Your task to perform on an android device: clear all cookies in the chrome app Image 0: 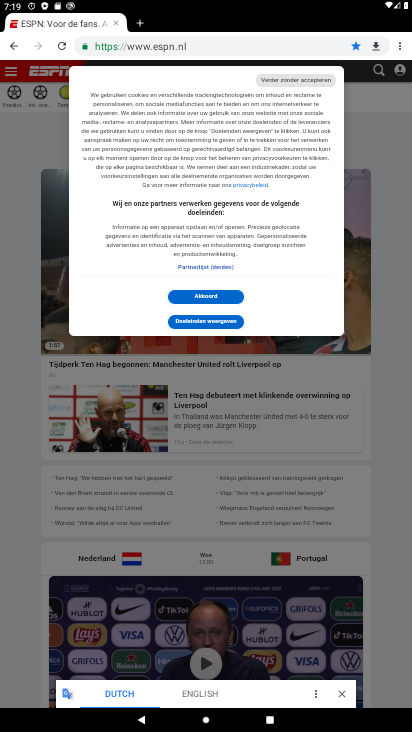
Step 0: press home button
Your task to perform on an android device: clear all cookies in the chrome app Image 1: 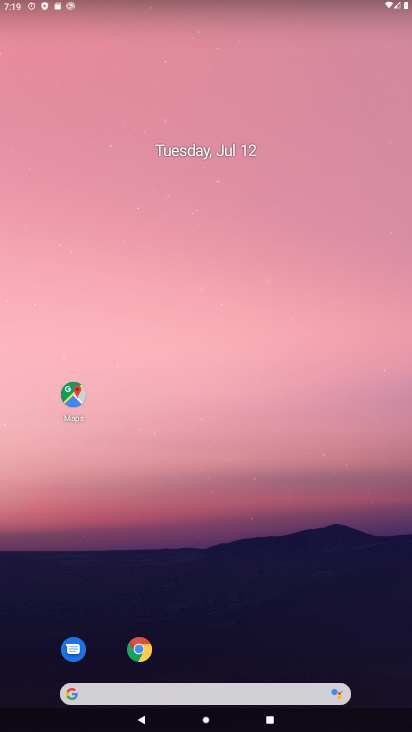
Step 1: click (140, 651)
Your task to perform on an android device: clear all cookies in the chrome app Image 2: 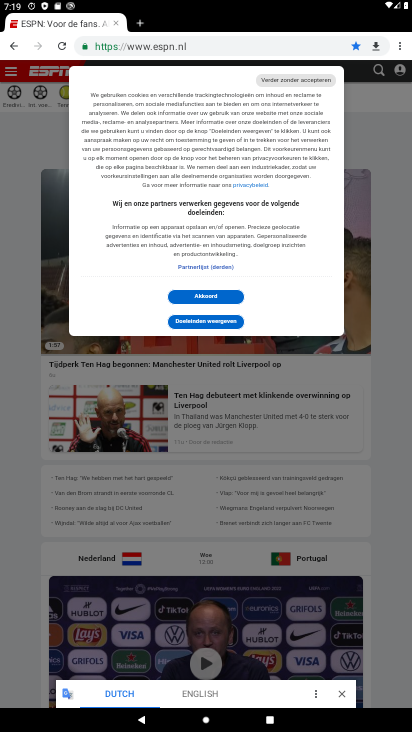
Step 2: click (400, 47)
Your task to perform on an android device: clear all cookies in the chrome app Image 3: 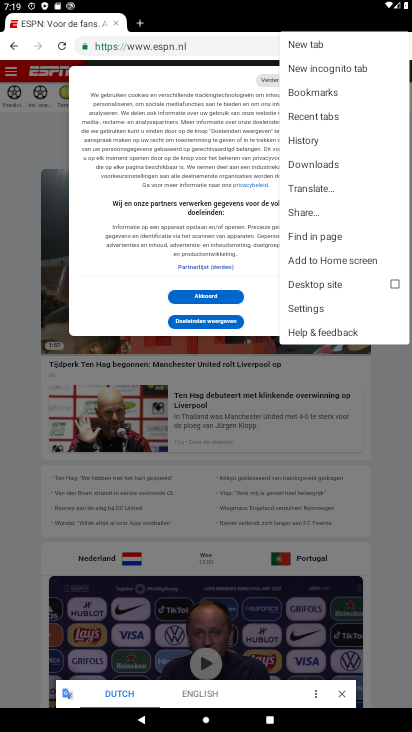
Step 3: click (314, 309)
Your task to perform on an android device: clear all cookies in the chrome app Image 4: 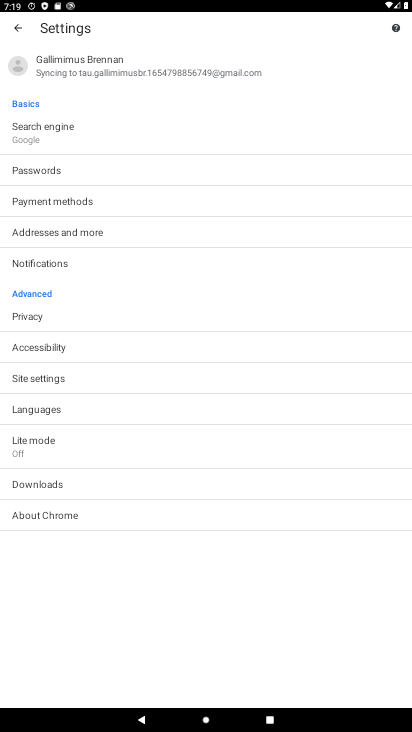
Step 4: click (32, 312)
Your task to perform on an android device: clear all cookies in the chrome app Image 5: 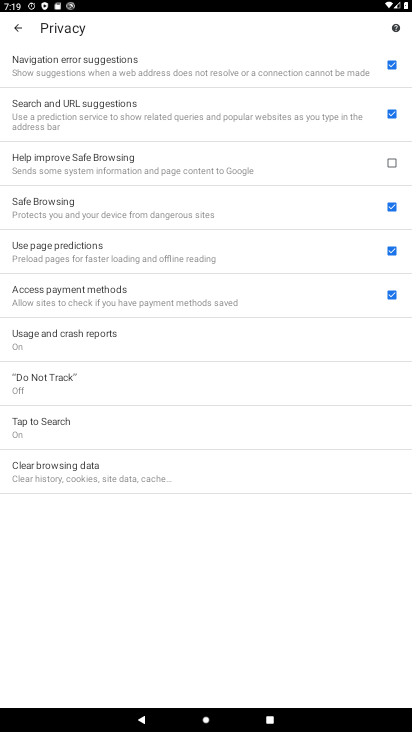
Step 5: click (98, 472)
Your task to perform on an android device: clear all cookies in the chrome app Image 6: 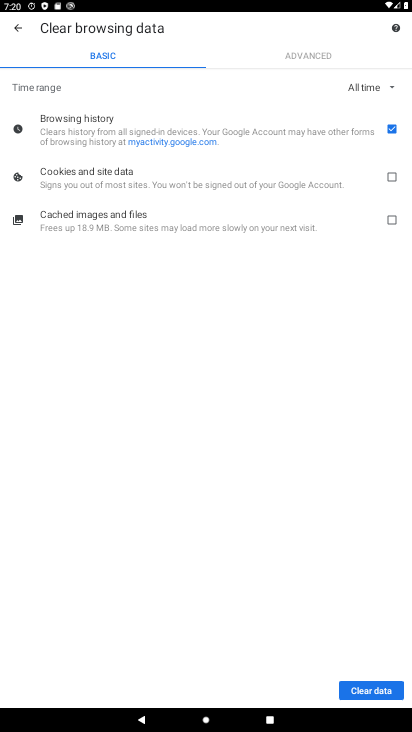
Step 6: click (391, 172)
Your task to perform on an android device: clear all cookies in the chrome app Image 7: 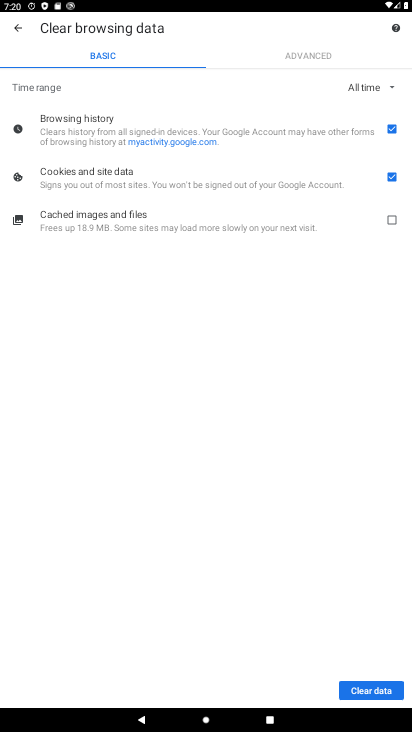
Step 7: click (390, 125)
Your task to perform on an android device: clear all cookies in the chrome app Image 8: 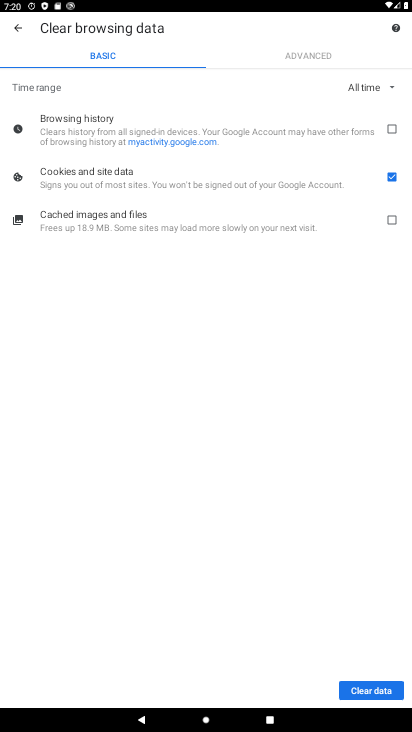
Step 8: click (374, 693)
Your task to perform on an android device: clear all cookies in the chrome app Image 9: 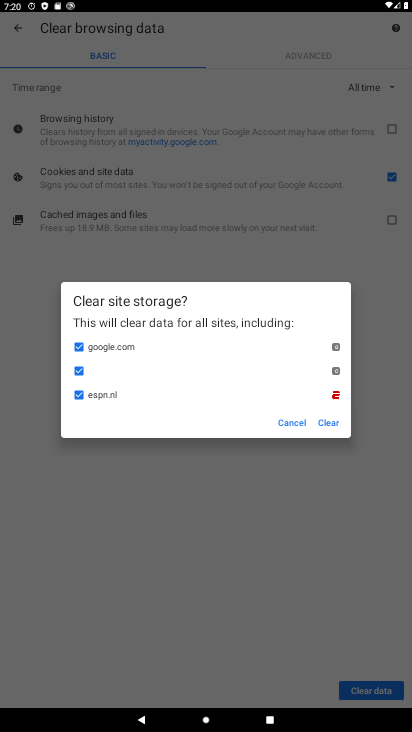
Step 9: click (328, 424)
Your task to perform on an android device: clear all cookies in the chrome app Image 10: 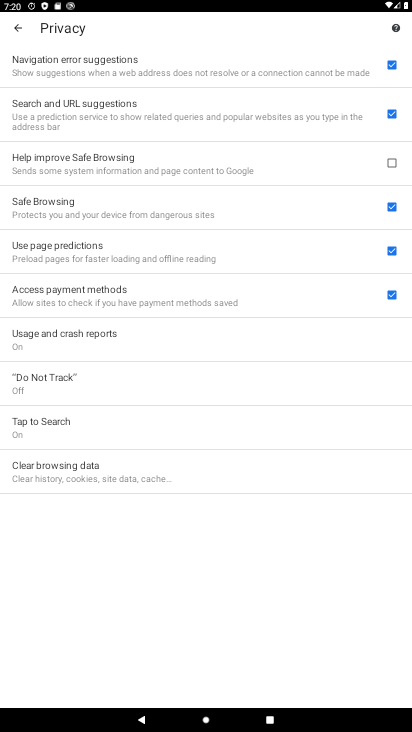
Step 10: task complete